Your task to perform on an android device: View the shopping cart on bestbuy.com. Image 0: 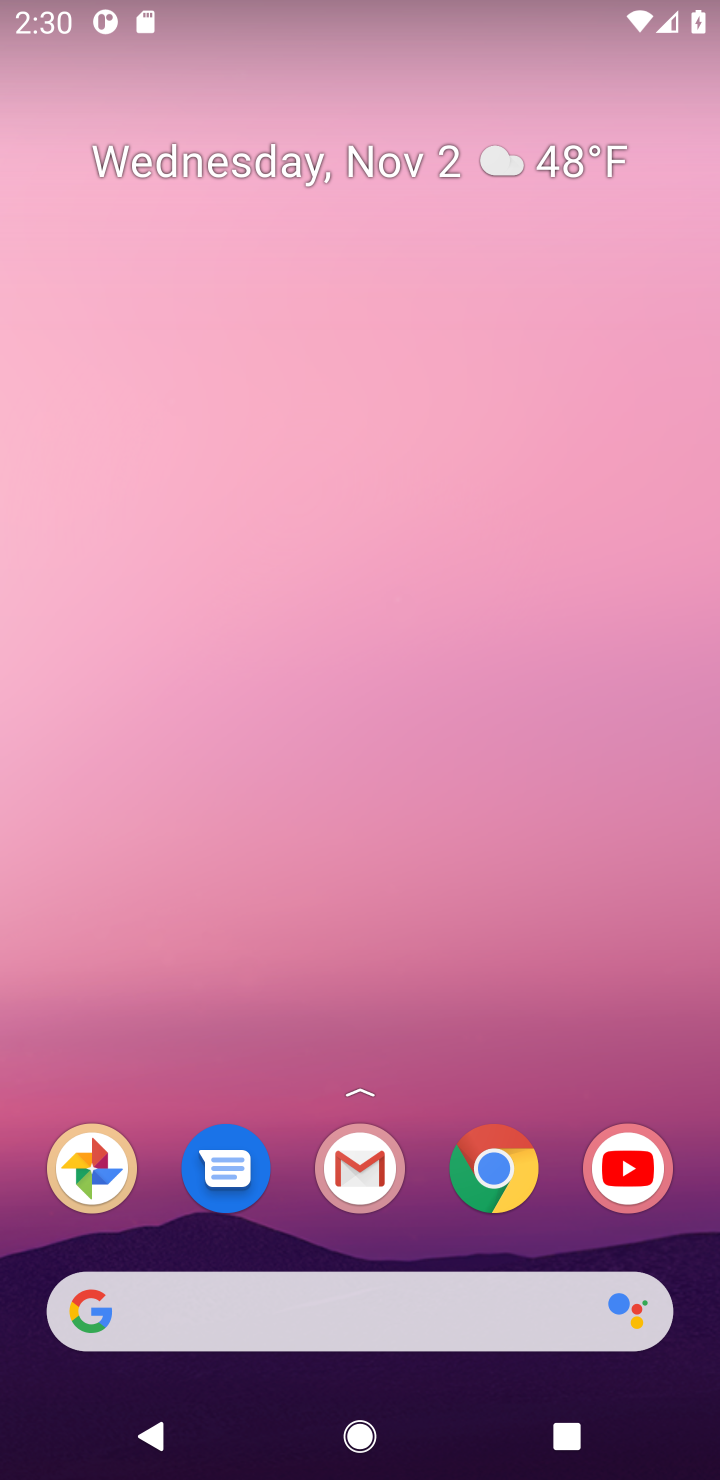
Step 0: click (376, 1316)
Your task to perform on an android device: View the shopping cart on bestbuy.com. Image 1: 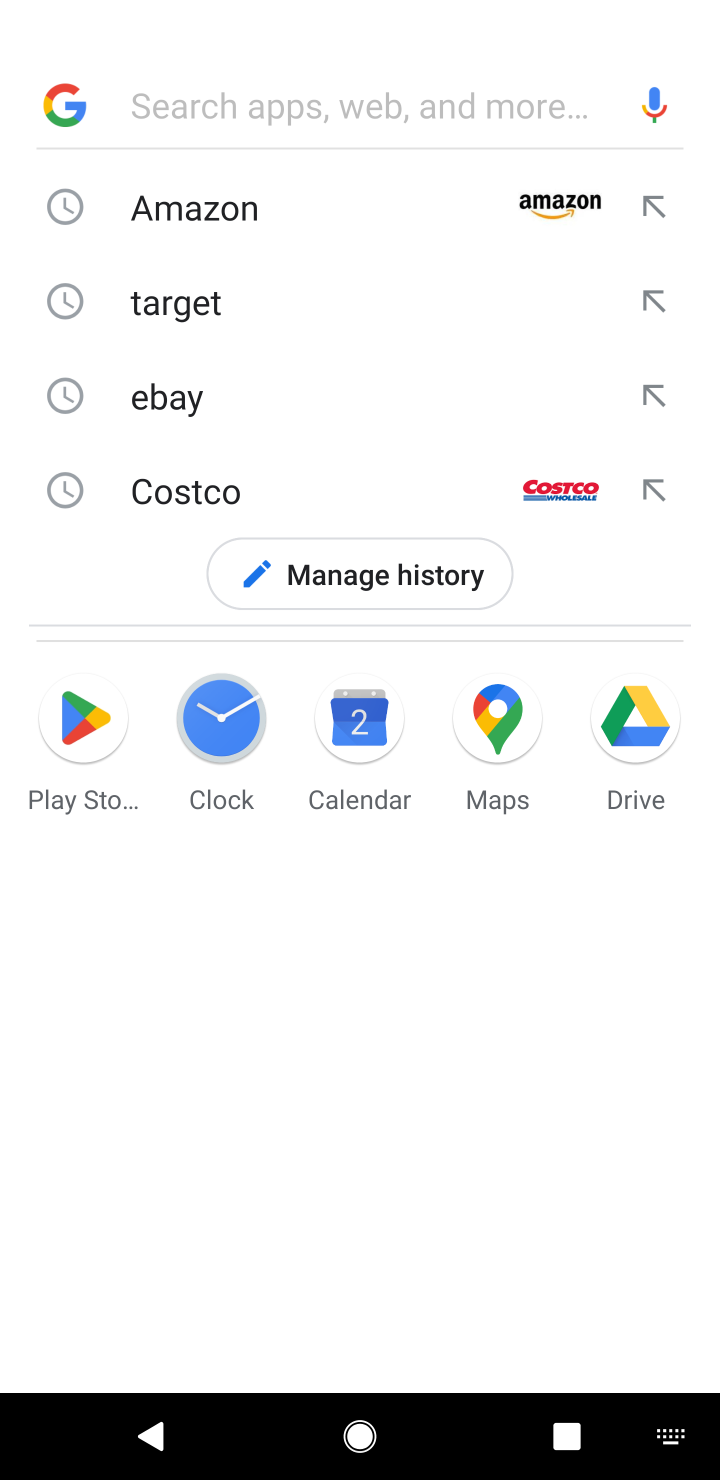
Step 1: type "bestbuy.com"
Your task to perform on an android device: View the shopping cart on bestbuy.com. Image 2: 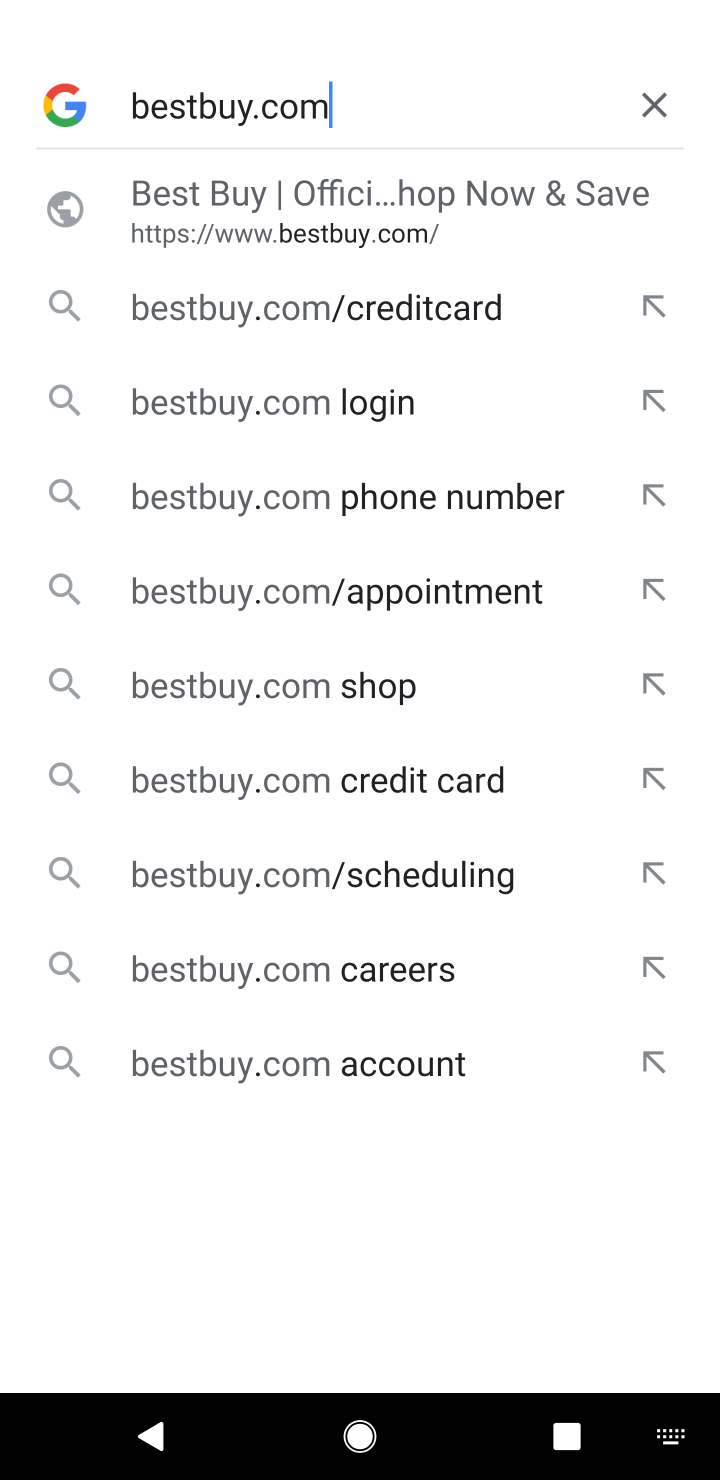
Step 2: click (342, 235)
Your task to perform on an android device: View the shopping cart on bestbuy.com. Image 3: 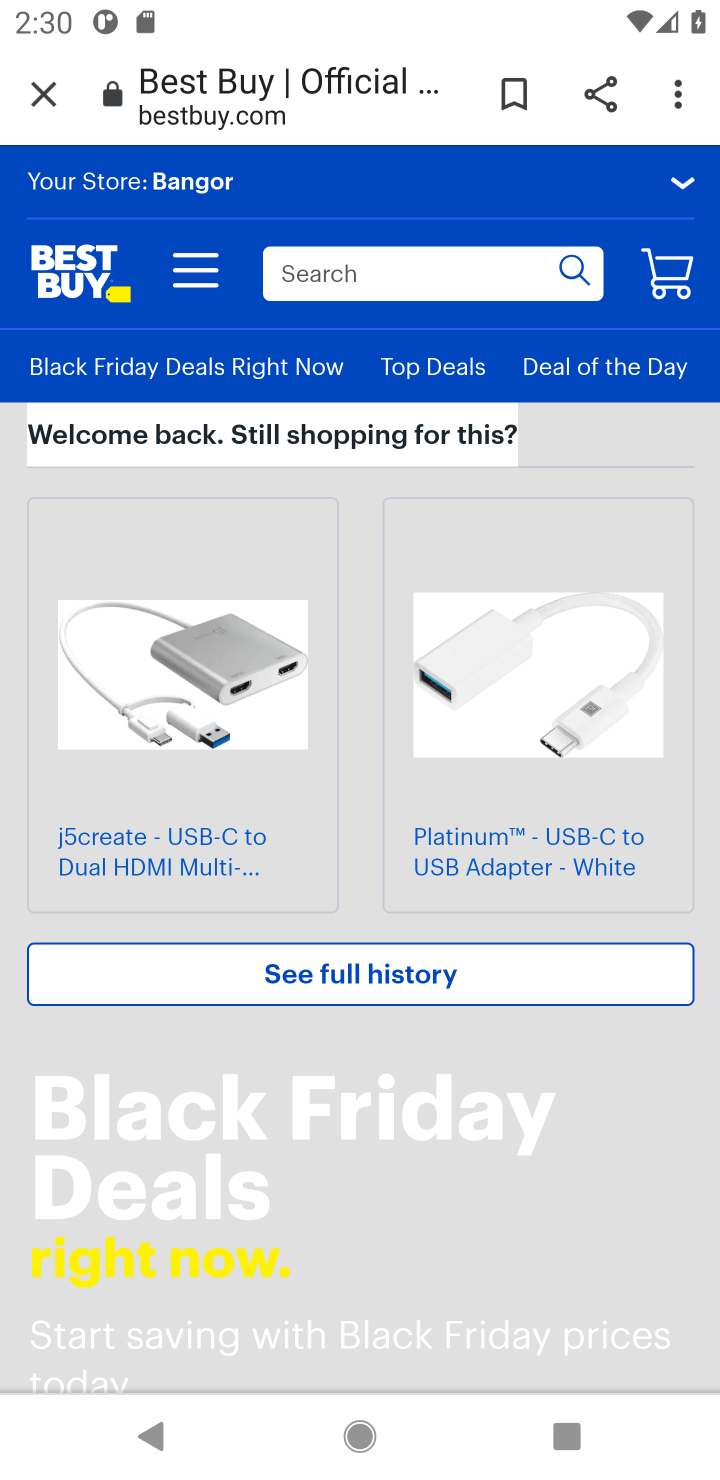
Step 3: click (684, 287)
Your task to perform on an android device: View the shopping cart on bestbuy.com. Image 4: 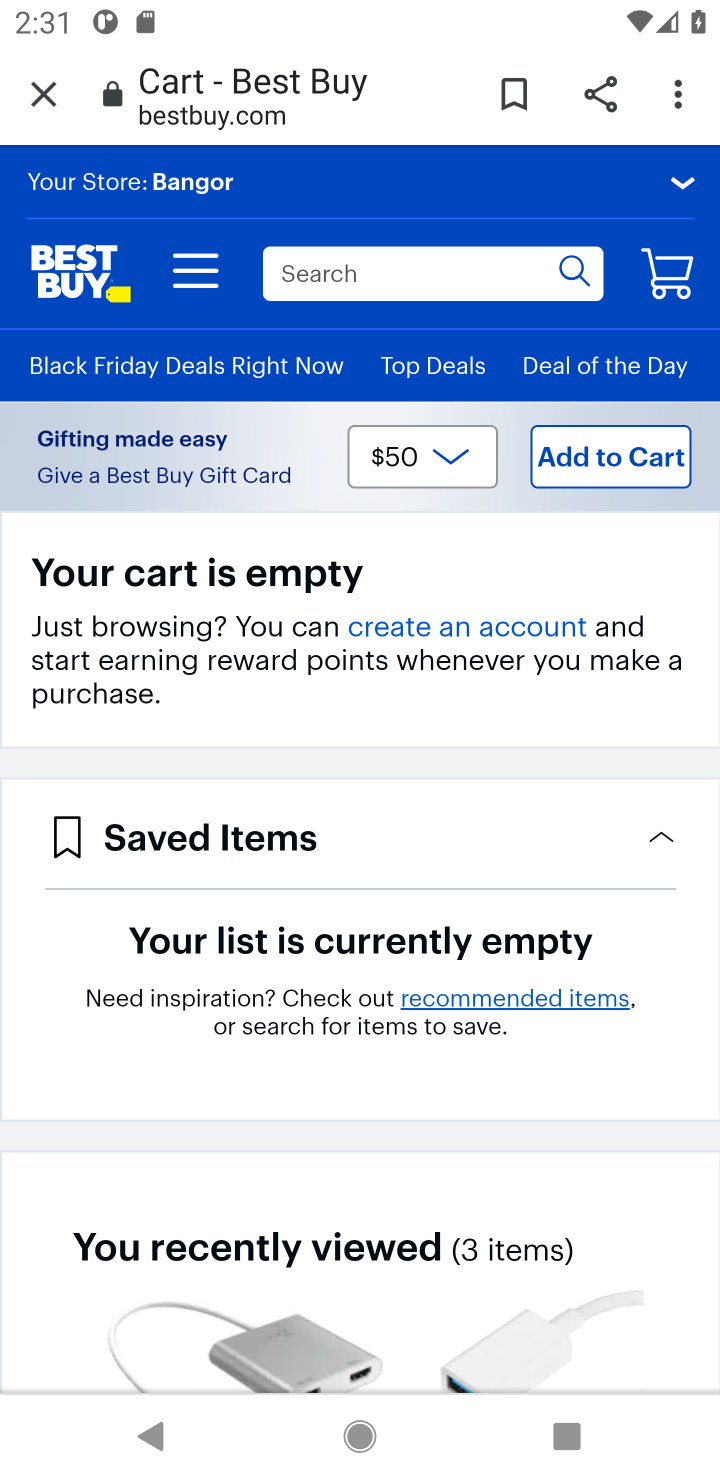
Step 4: task complete